Your task to perform on an android device: turn off sleep mode Image 0: 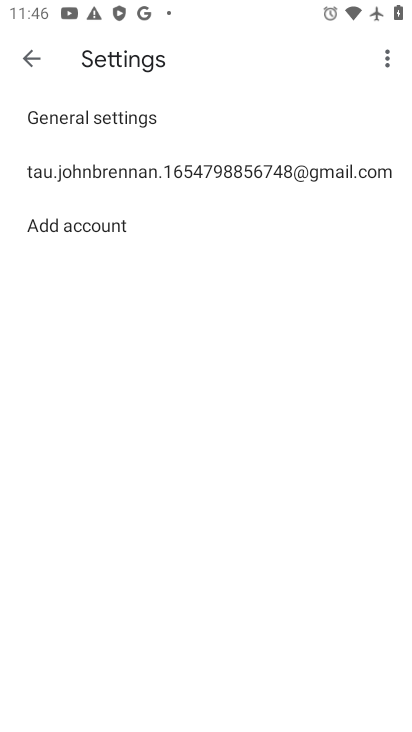
Step 0: press home button
Your task to perform on an android device: turn off sleep mode Image 1: 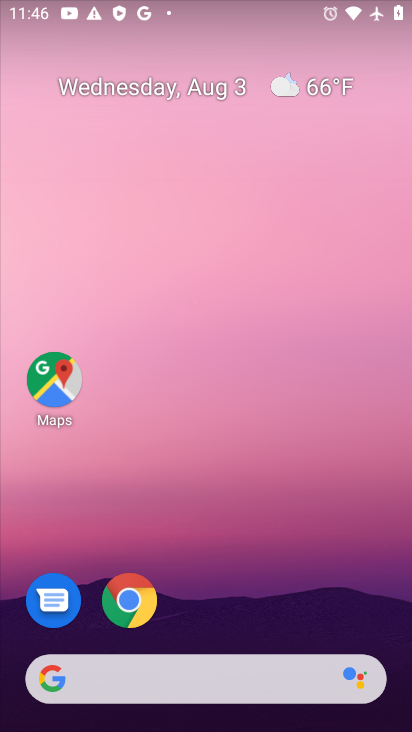
Step 1: drag from (204, 639) to (208, 0)
Your task to perform on an android device: turn off sleep mode Image 2: 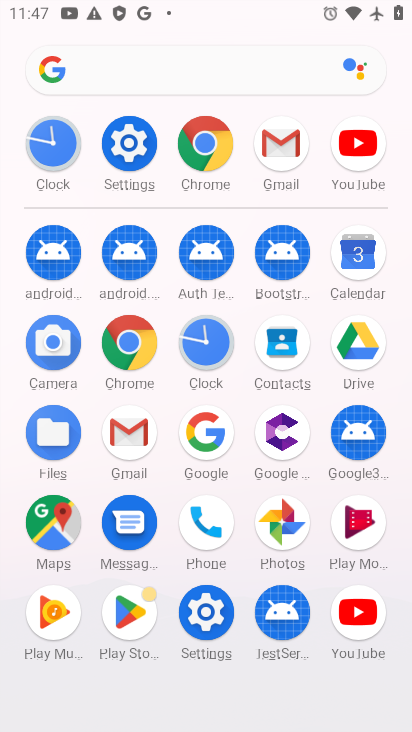
Step 2: click (129, 127)
Your task to perform on an android device: turn off sleep mode Image 3: 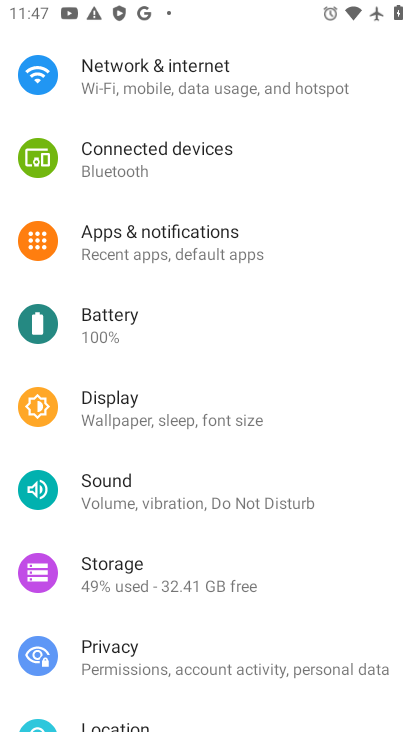
Step 3: task complete